Your task to perform on an android device: turn off priority inbox in the gmail app Image 0: 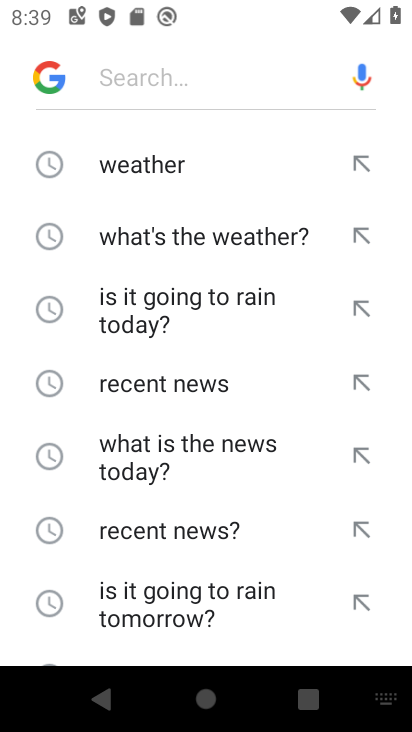
Step 0: press home button
Your task to perform on an android device: turn off priority inbox in the gmail app Image 1: 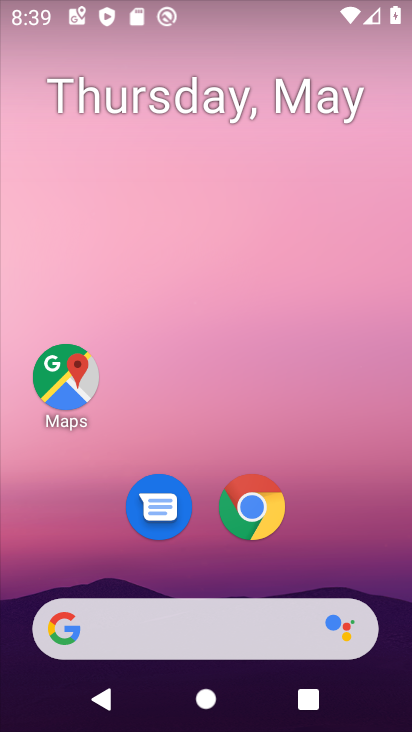
Step 1: drag from (371, 559) to (345, 140)
Your task to perform on an android device: turn off priority inbox in the gmail app Image 2: 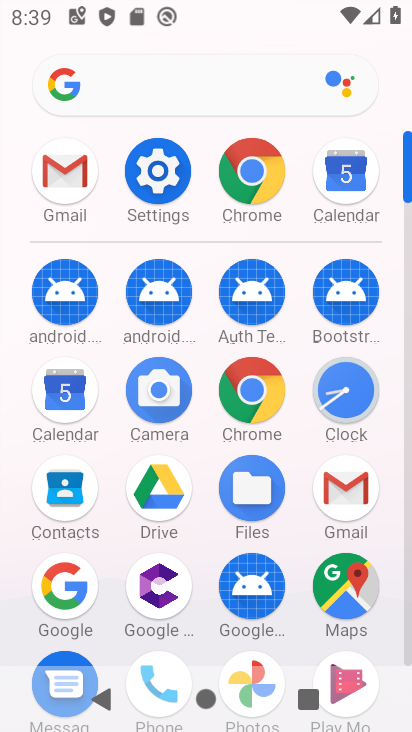
Step 2: click (368, 501)
Your task to perform on an android device: turn off priority inbox in the gmail app Image 3: 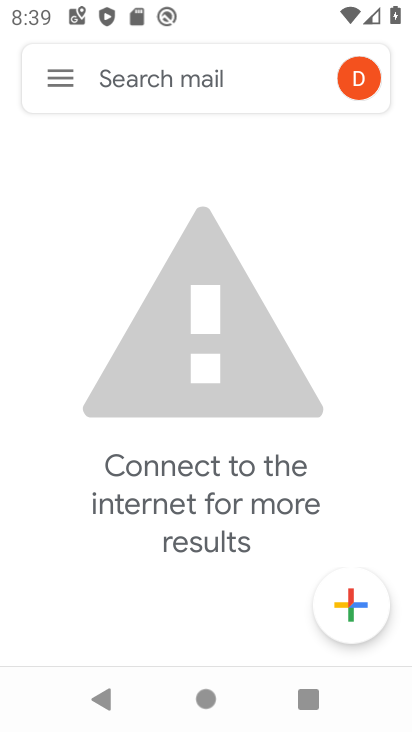
Step 3: click (56, 72)
Your task to perform on an android device: turn off priority inbox in the gmail app Image 4: 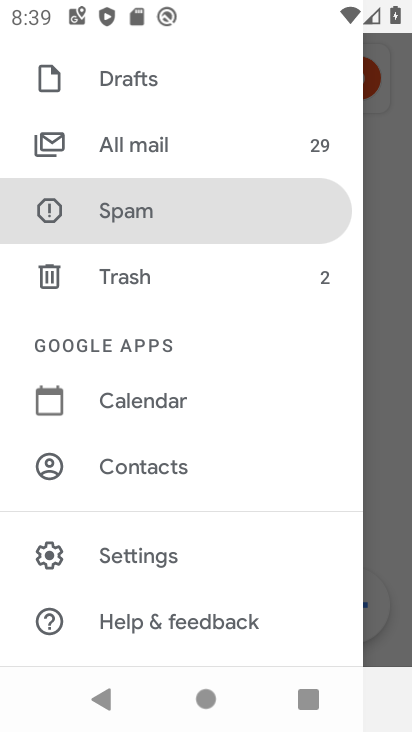
Step 4: click (164, 564)
Your task to perform on an android device: turn off priority inbox in the gmail app Image 5: 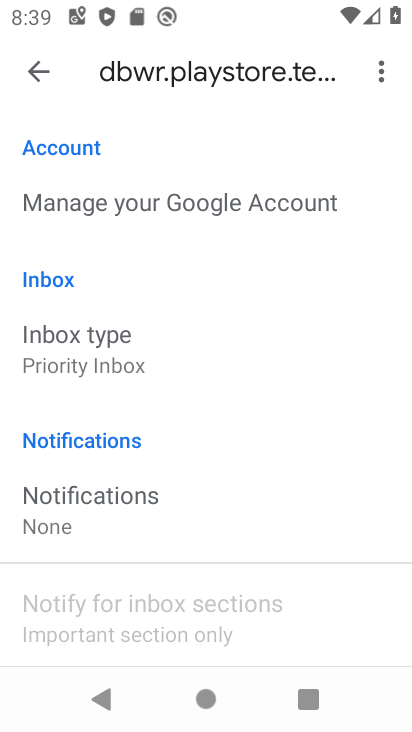
Step 5: drag from (340, 622) to (345, 240)
Your task to perform on an android device: turn off priority inbox in the gmail app Image 6: 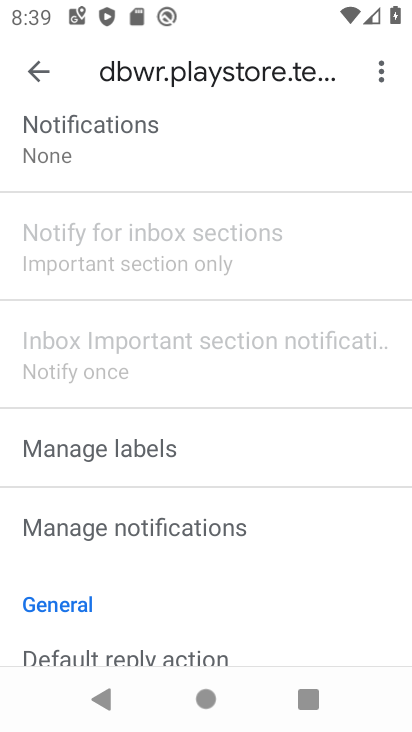
Step 6: drag from (299, 557) to (309, 252)
Your task to perform on an android device: turn off priority inbox in the gmail app Image 7: 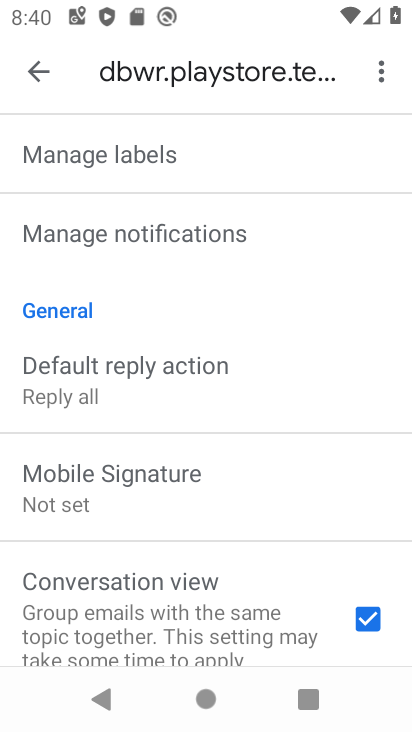
Step 7: drag from (294, 160) to (246, 553)
Your task to perform on an android device: turn off priority inbox in the gmail app Image 8: 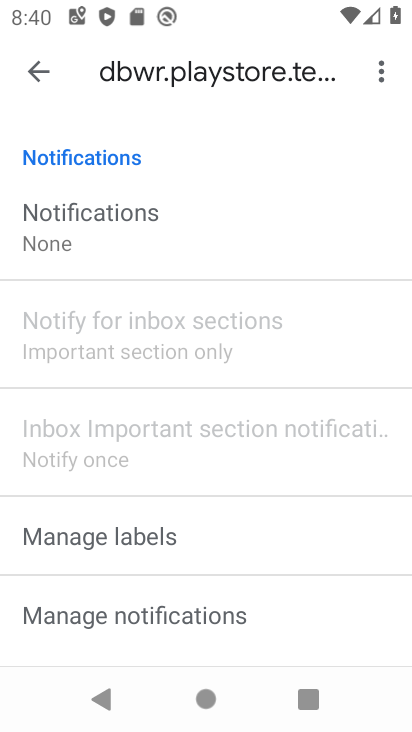
Step 8: drag from (278, 160) to (267, 535)
Your task to perform on an android device: turn off priority inbox in the gmail app Image 9: 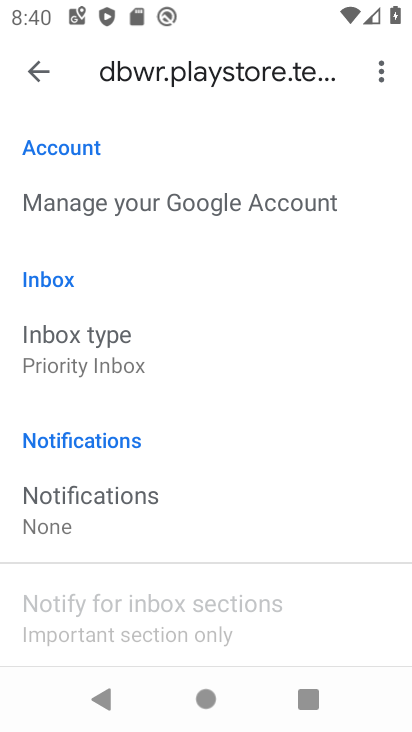
Step 9: click (136, 362)
Your task to perform on an android device: turn off priority inbox in the gmail app Image 10: 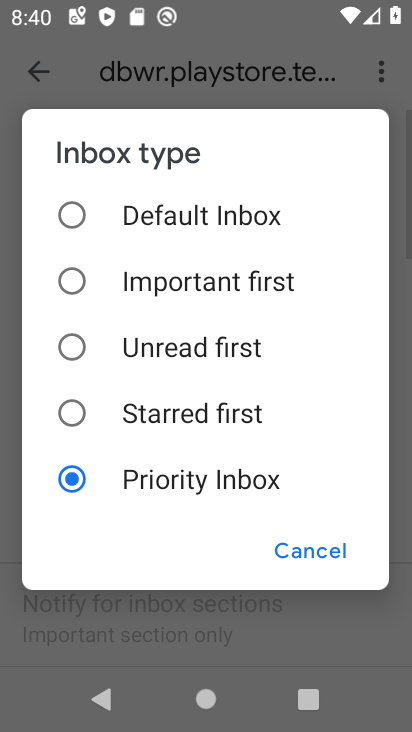
Step 10: click (76, 210)
Your task to perform on an android device: turn off priority inbox in the gmail app Image 11: 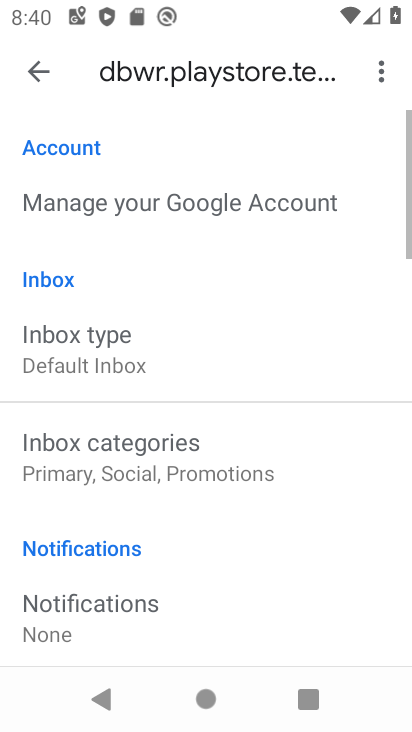
Step 11: task complete